Your task to perform on an android device: install app "Fetch Rewards" Image 0: 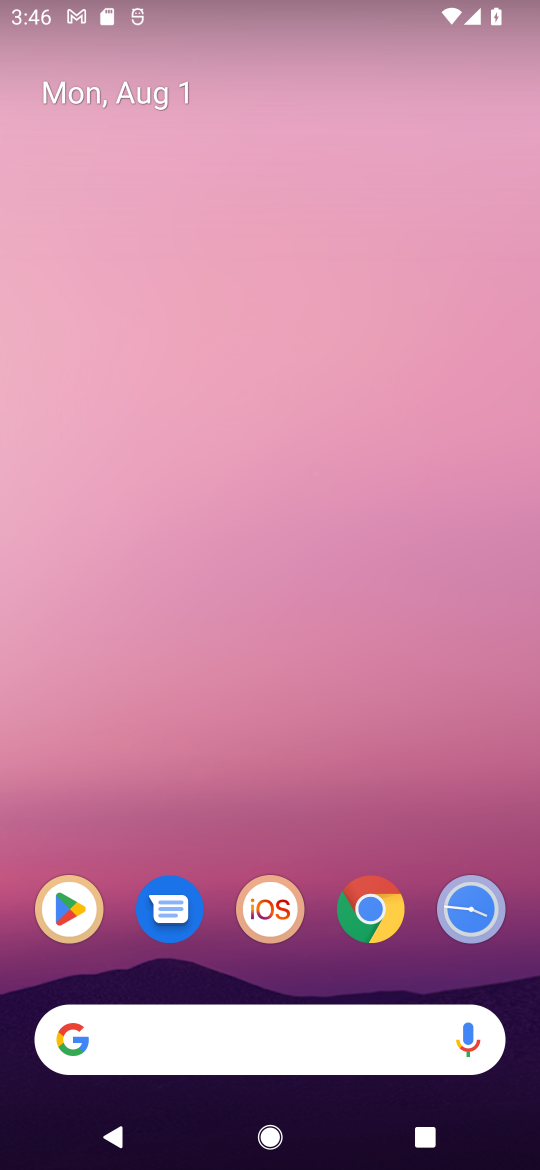
Step 0: click (59, 922)
Your task to perform on an android device: install app "Fetch Rewards" Image 1: 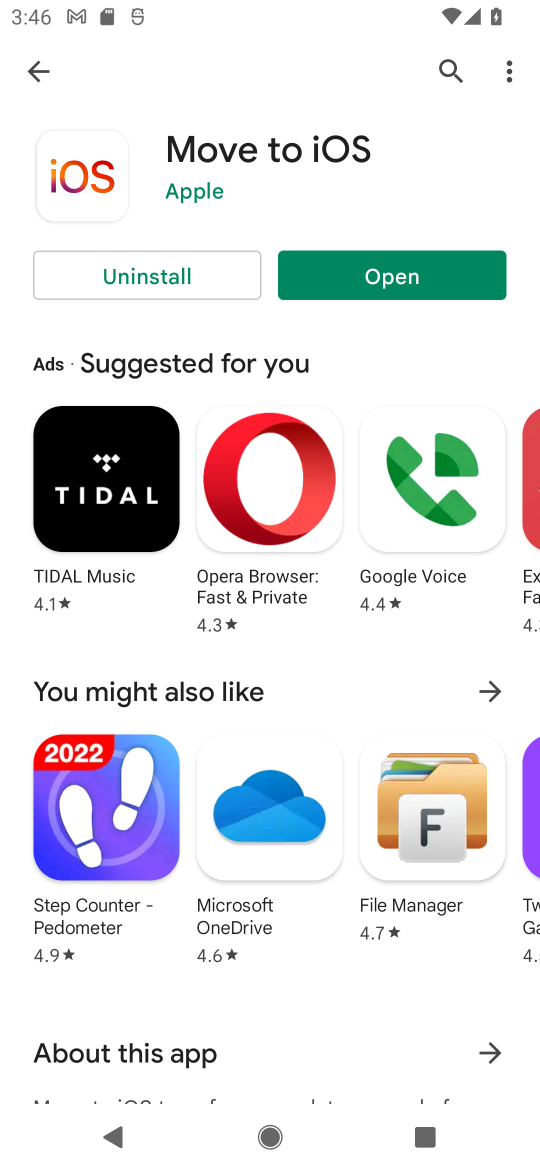
Step 1: click (25, 67)
Your task to perform on an android device: install app "Fetch Rewards" Image 2: 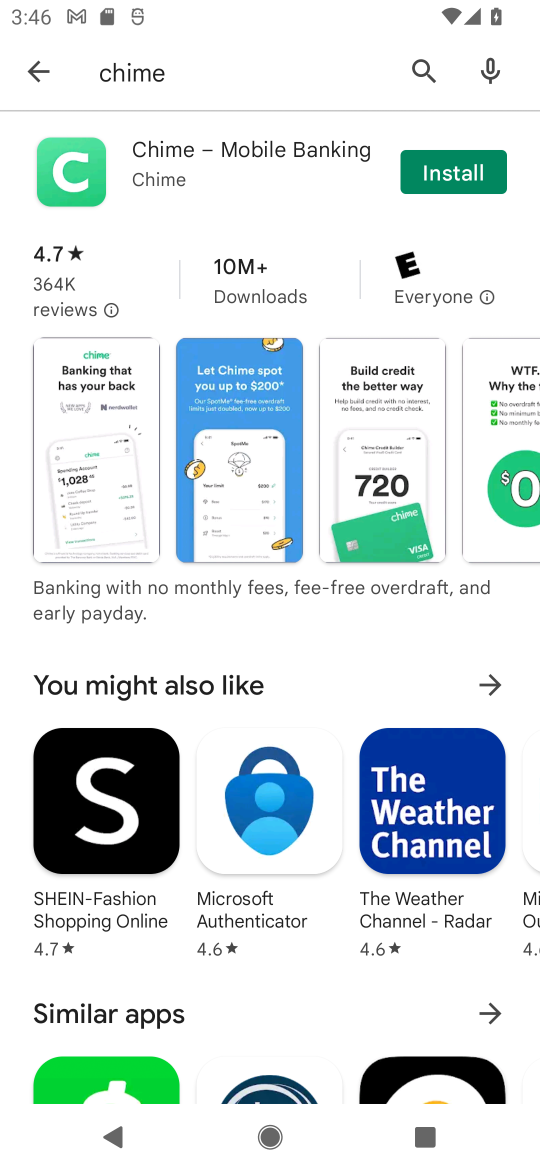
Step 2: click (221, 74)
Your task to perform on an android device: install app "Fetch Rewards" Image 3: 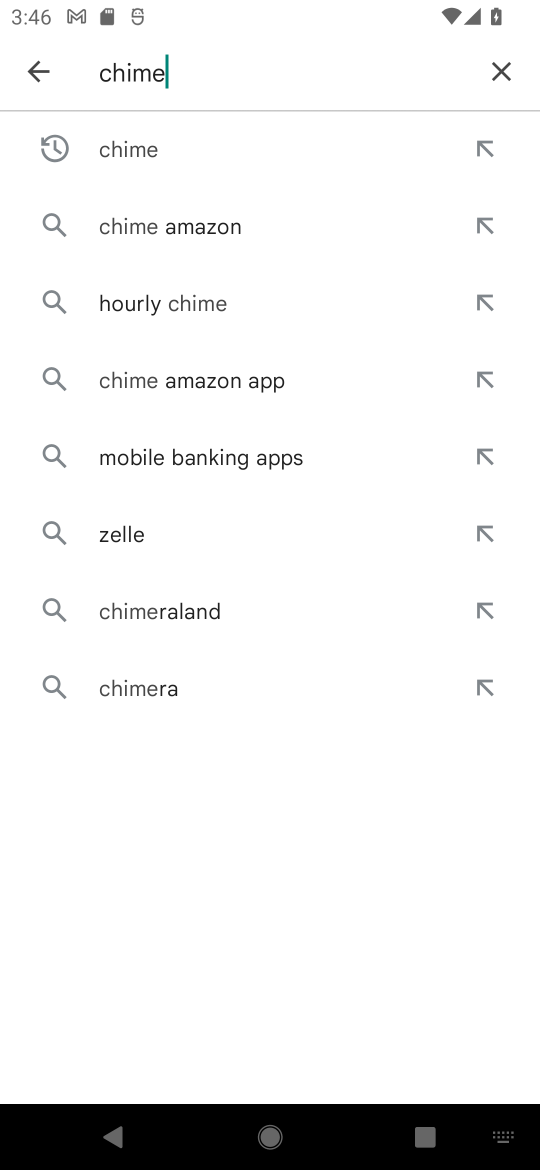
Step 3: click (489, 79)
Your task to perform on an android device: install app "Fetch Rewards" Image 4: 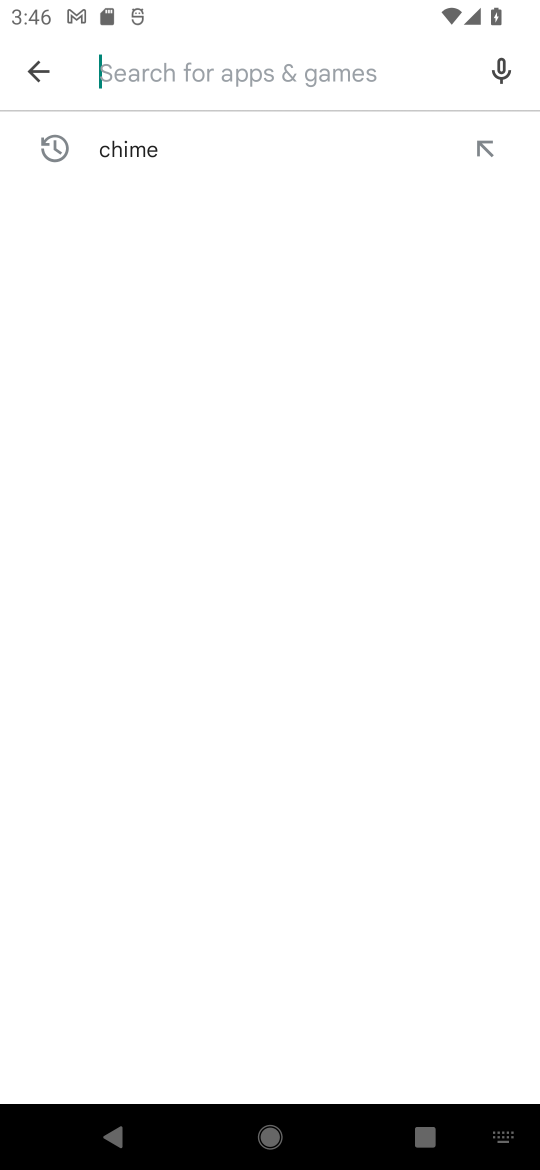
Step 4: type "fetch rewards"
Your task to perform on an android device: install app "Fetch Rewards" Image 5: 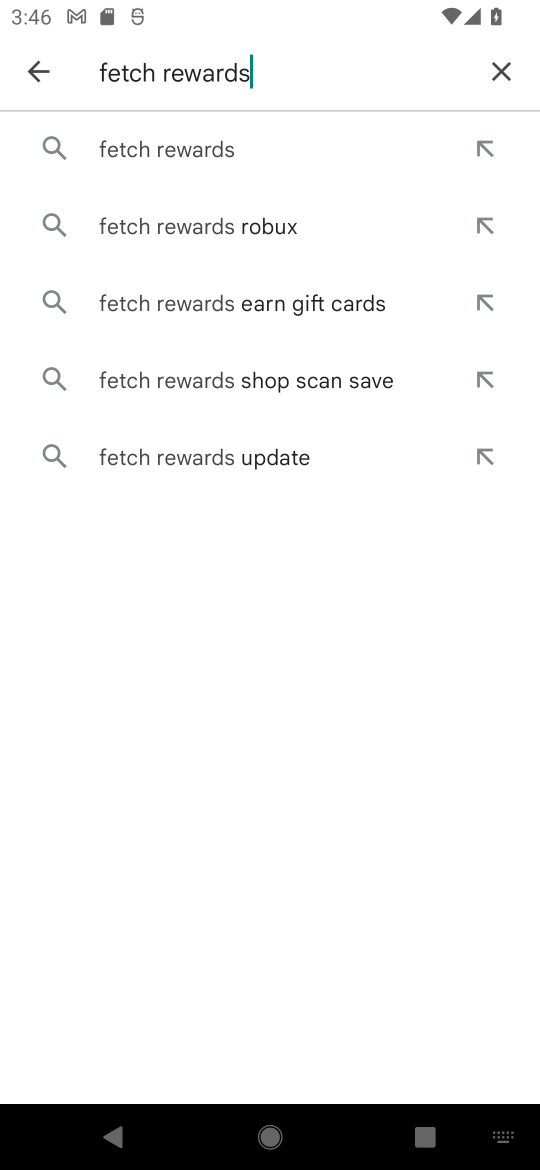
Step 5: click (228, 157)
Your task to perform on an android device: install app "Fetch Rewards" Image 6: 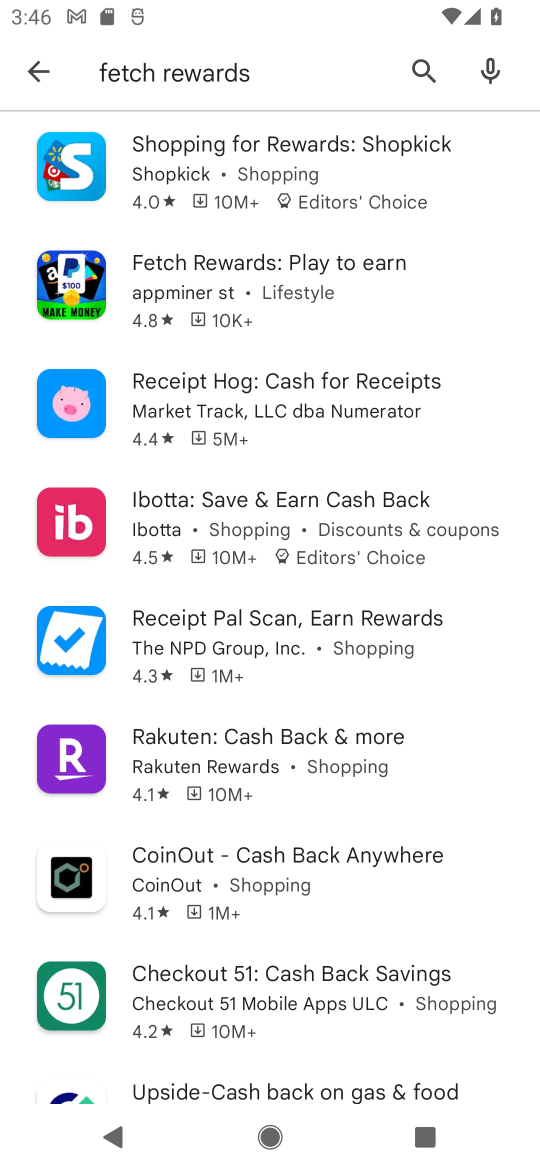
Step 6: click (216, 279)
Your task to perform on an android device: install app "Fetch Rewards" Image 7: 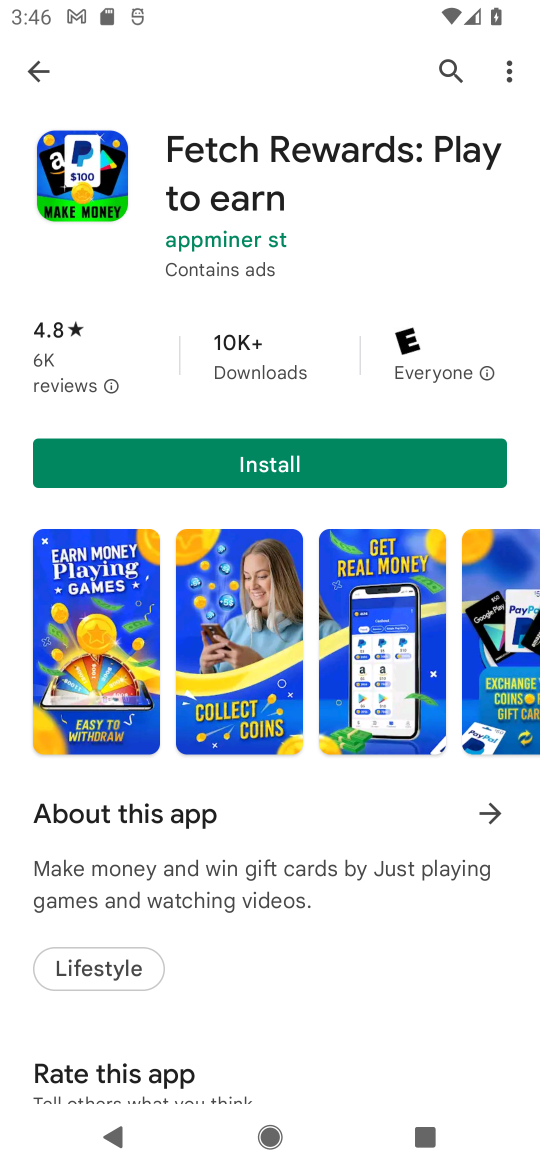
Step 7: click (298, 466)
Your task to perform on an android device: install app "Fetch Rewards" Image 8: 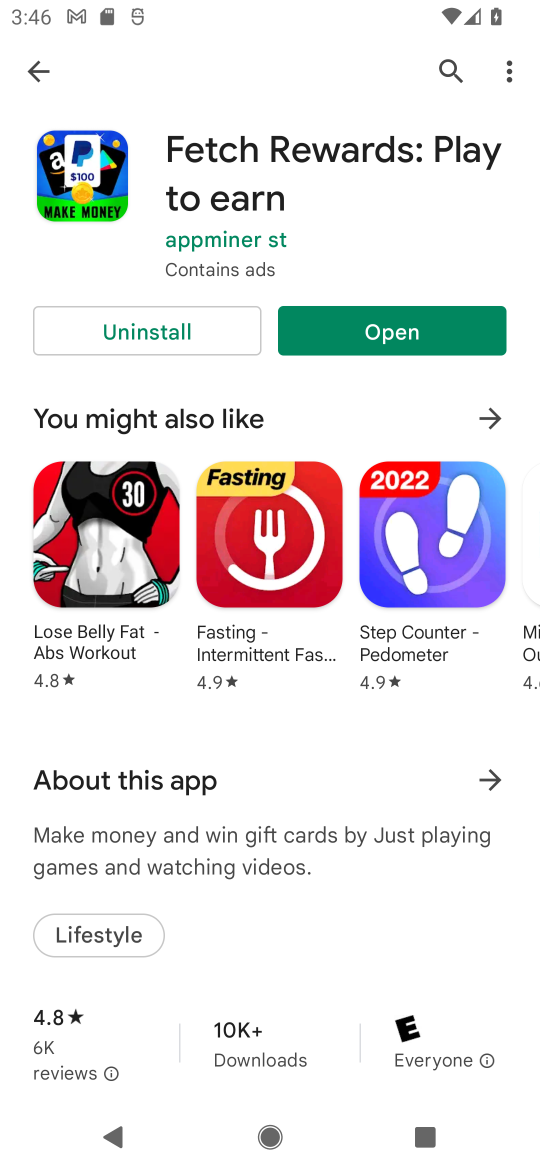
Step 8: task complete